Your task to perform on an android device: Search for flights from Seoul to Barcelona Image 0: 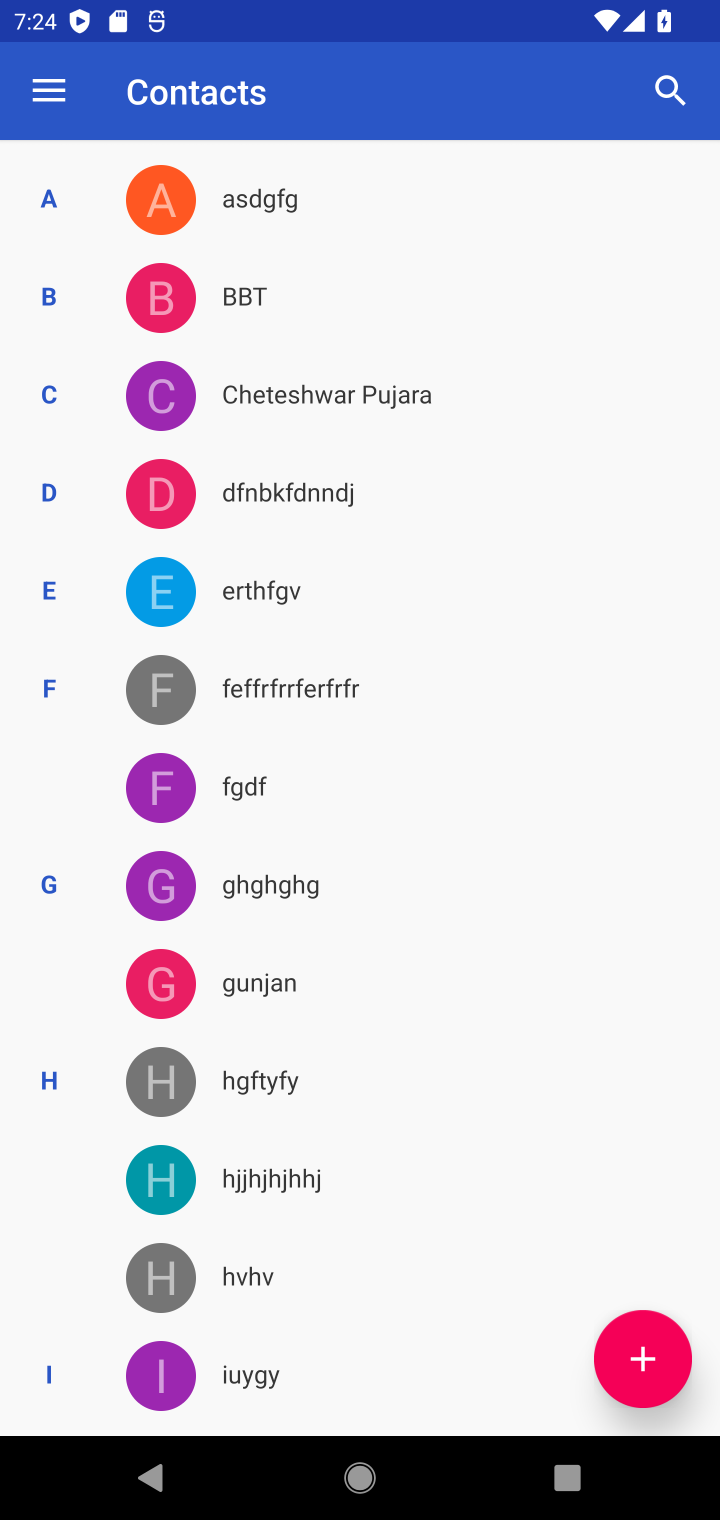
Step 0: press home button
Your task to perform on an android device: Search for flights from Seoul to Barcelona Image 1: 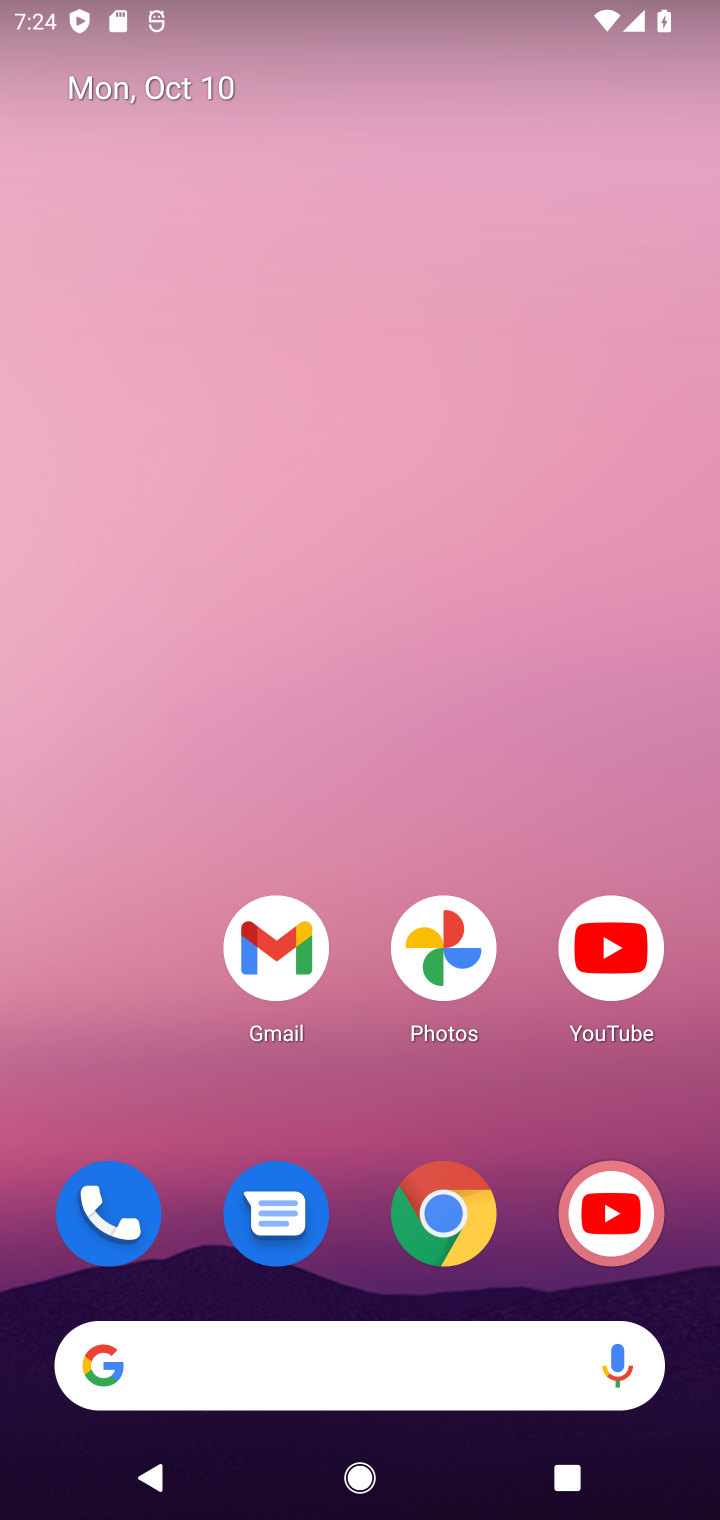
Step 1: click (281, 1374)
Your task to perform on an android device: Search for flights from Seoul to Barcelona Image 2: 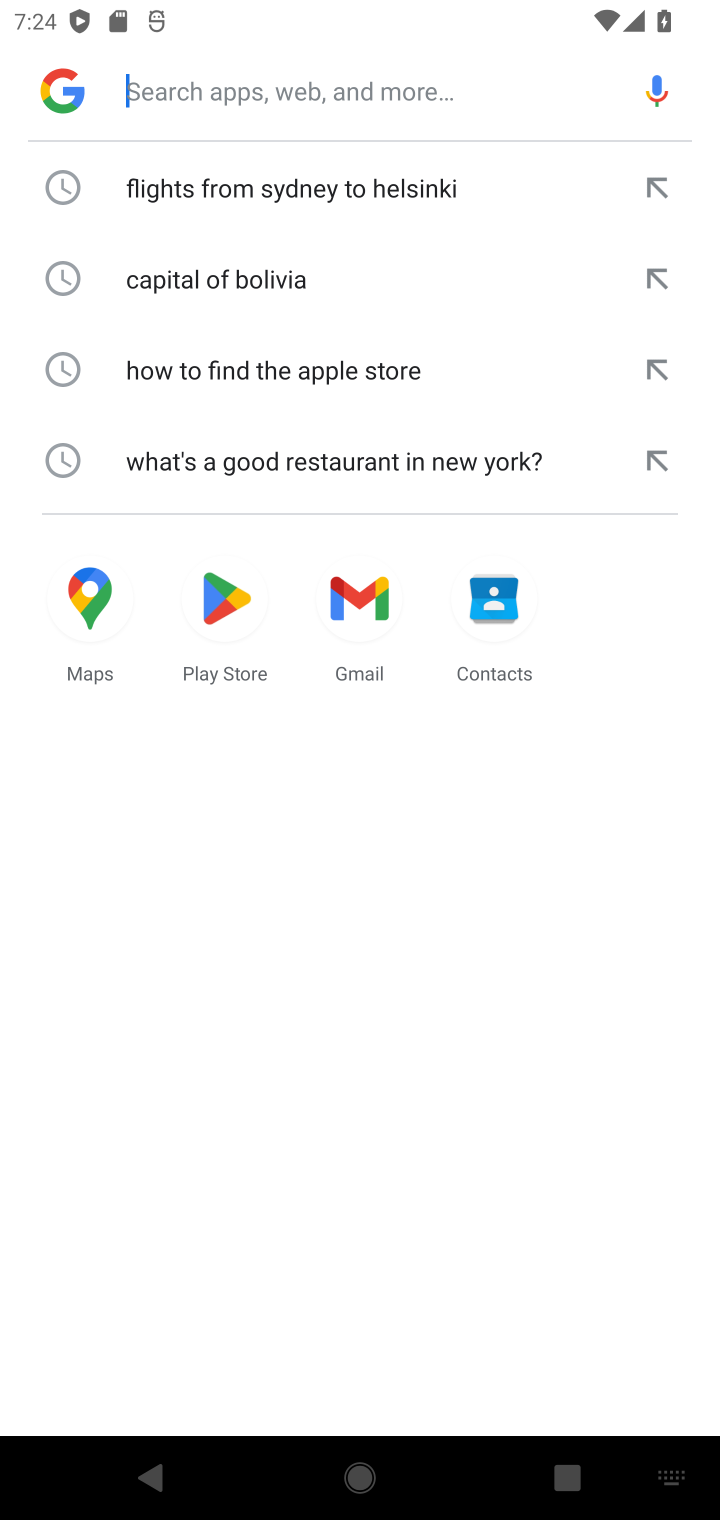
Step 2: click (182, 81)
Your task to perform on an android device: Search for flights from Seoul to Barcelona Image 3: 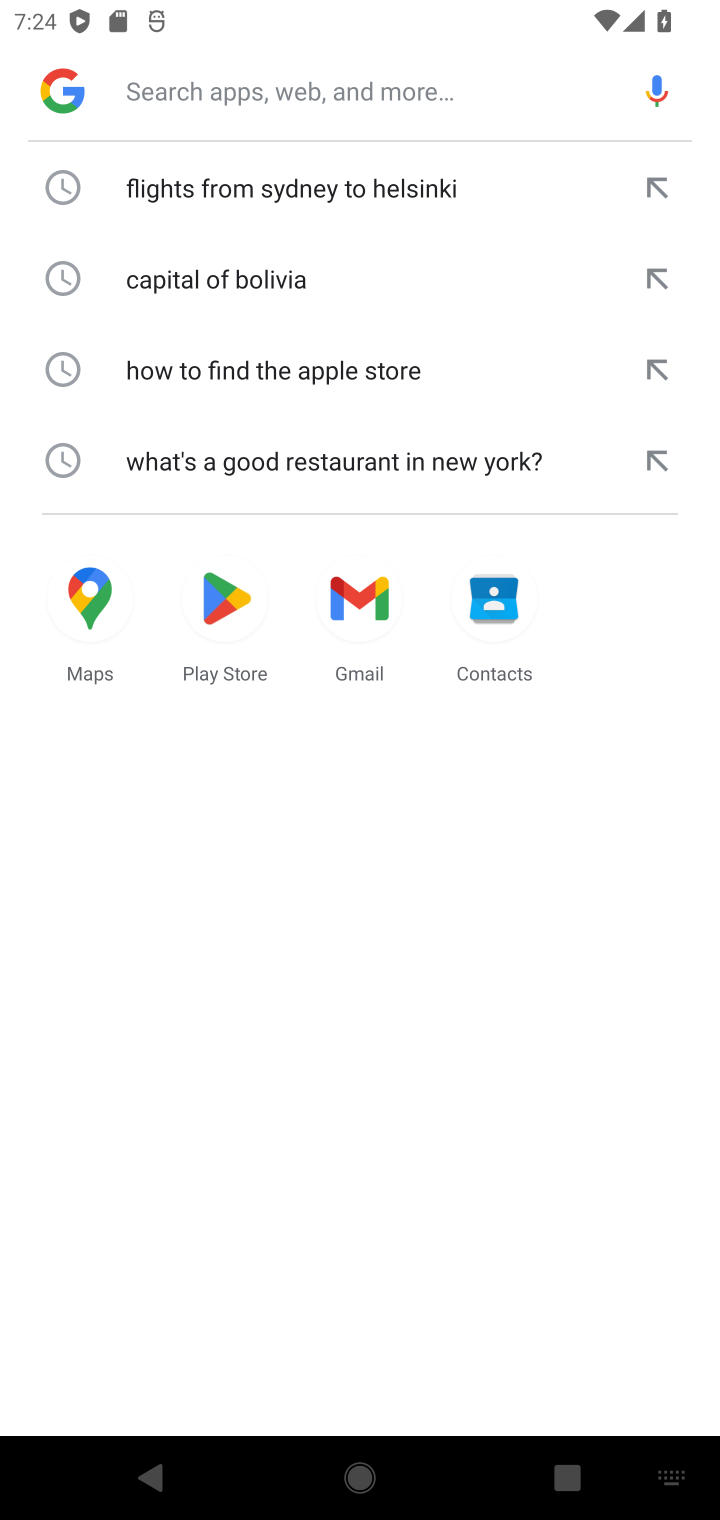
Step 3: type "flights from Seoul to Barcelona"
Your task to perform on an android device: Search for flights from Seoul to Barcelona Image 4: 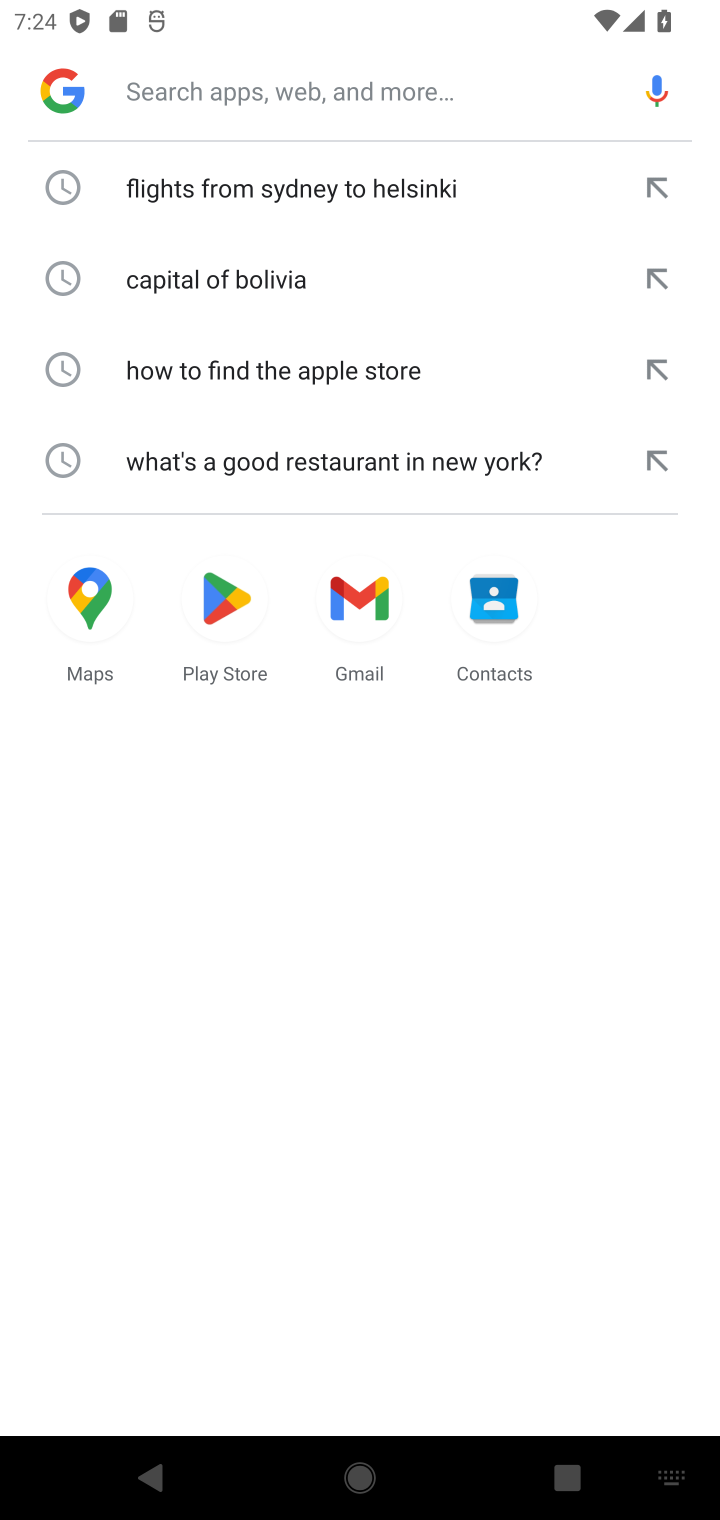
Step 4: click (306, 1143)
Your task to perform on an android device: Search for flights from Seoul to Barcelona Image 5: 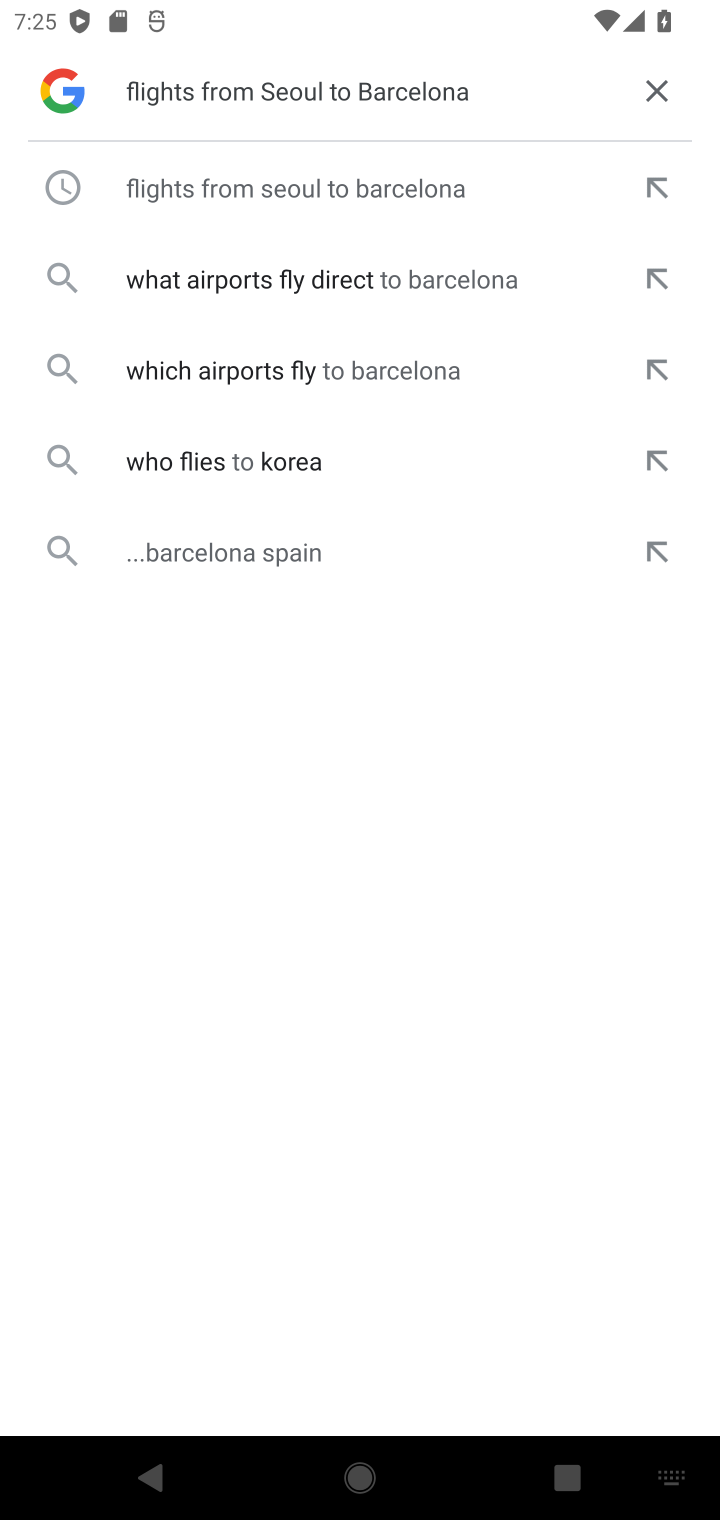
Step 5: click (275, 186)
Your task to perform on an android device: Search for flights from Seoul to Barcelona Image 6: 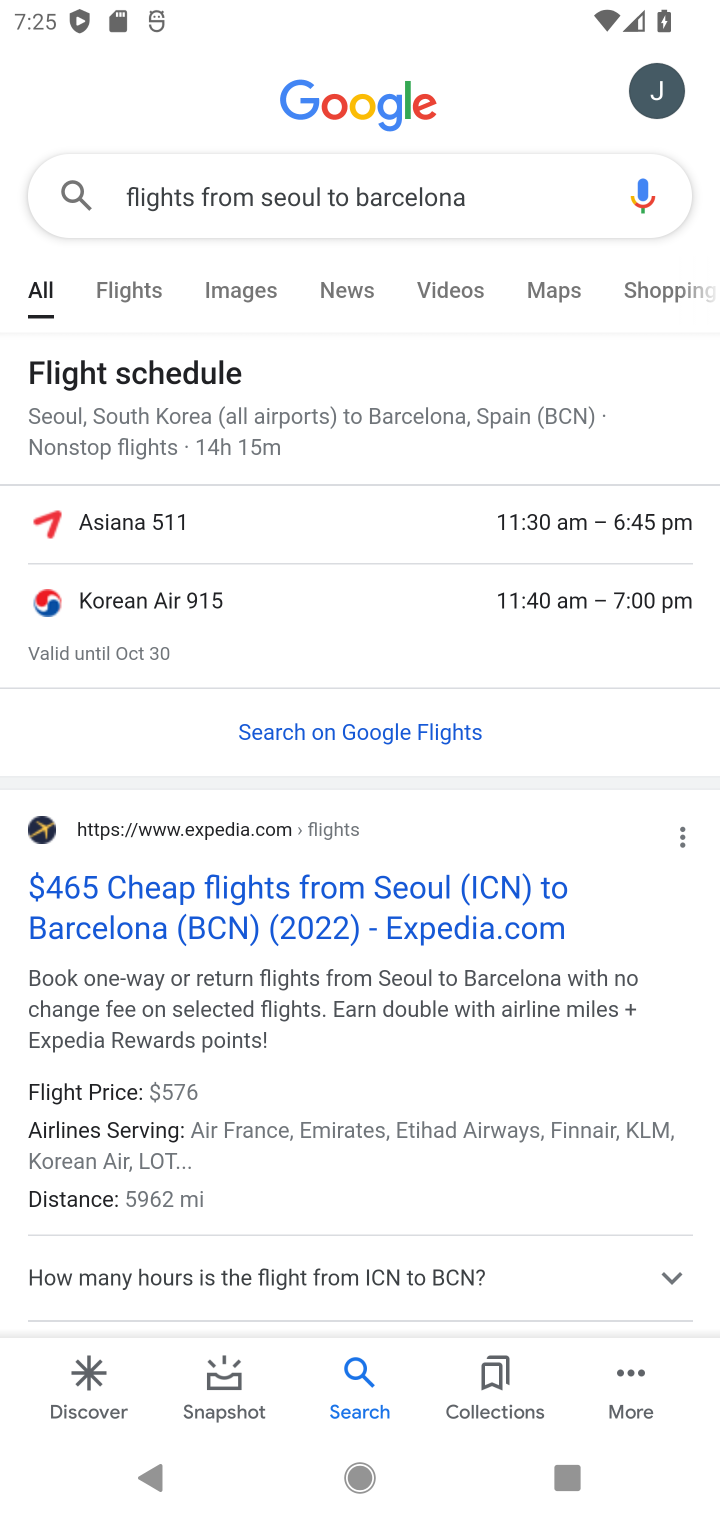
Step 6: task complete